Your task to perform on an android device: Open calendar and show me the second week of next month Image 0: 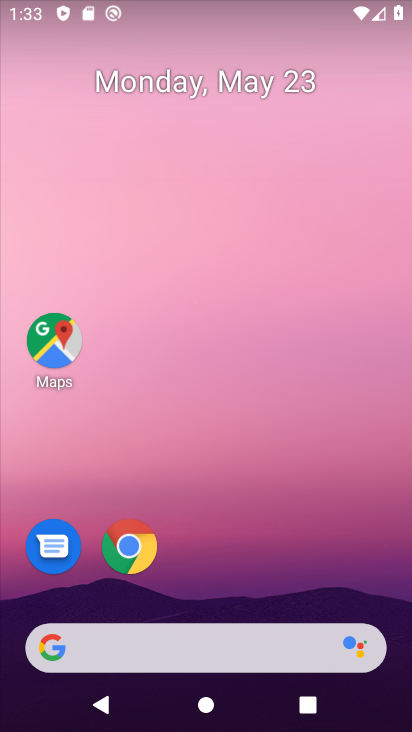
Step 0: drag from (238, 523) to (308, 30)
Your task to perform on an android device: Open calendar and show me the second week of next month Image 1: 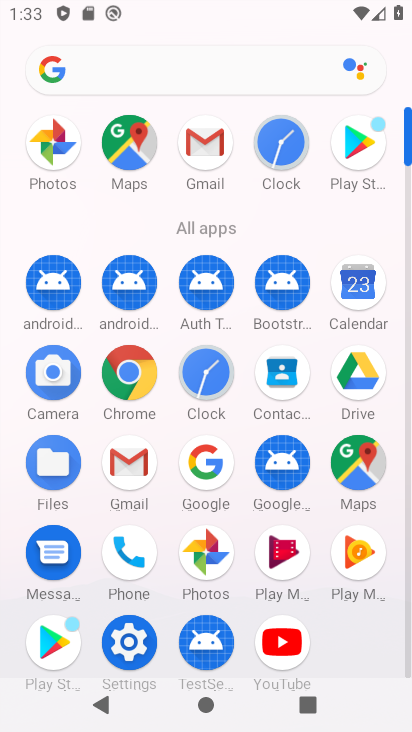
Step 1: click (353, 297)
Your task to perform on an android device: Open calendar and show me the second week of next month Image 2: 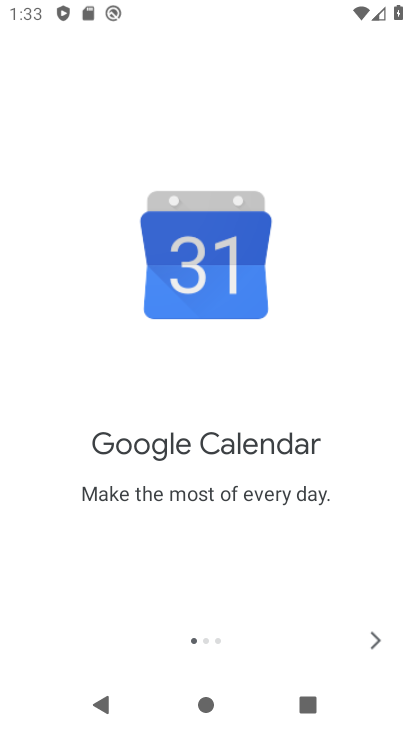
Step 2: click (375, 643)
Your task to perform on an android device: Open calendar and show me the second week of next month Image 3: 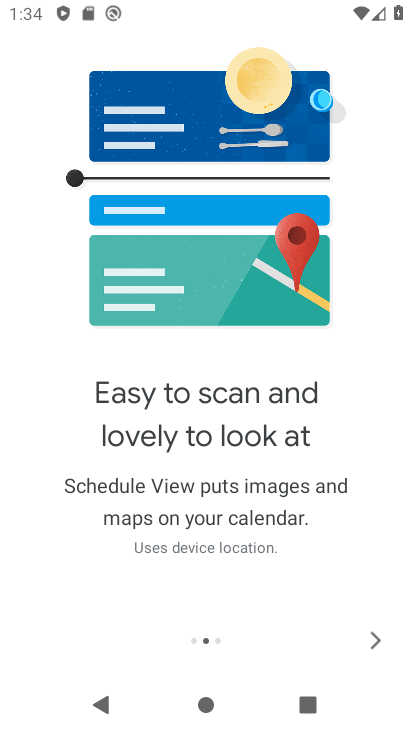
Step 3: click (371, 642)
Your task to perform on an android device: Open calendar and show me the second week of next month Image 4: 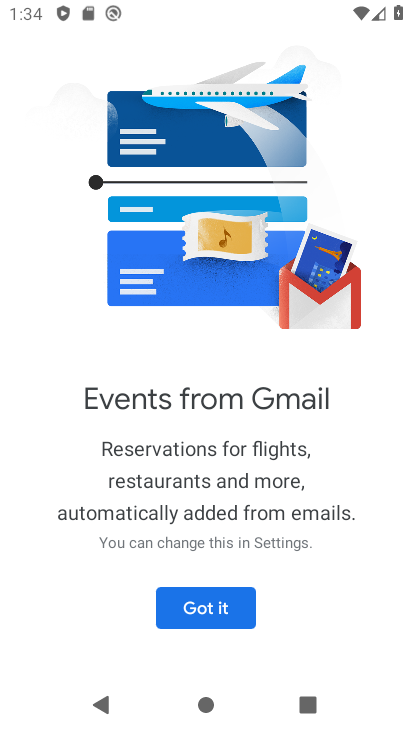
Step 4: click (207, 611)
Your task to perform on an android device: Open calendar and show me the second week of next month Image 5: 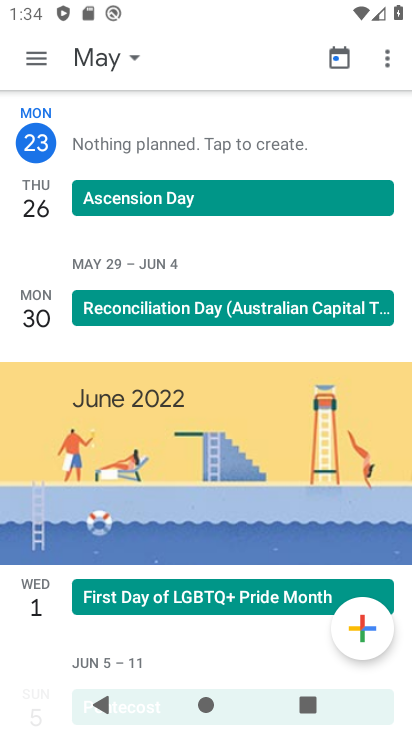
Step 5: click (123, 54)
Your task to perform on an android device: Open calendar and show me the second week of next month Image 6: 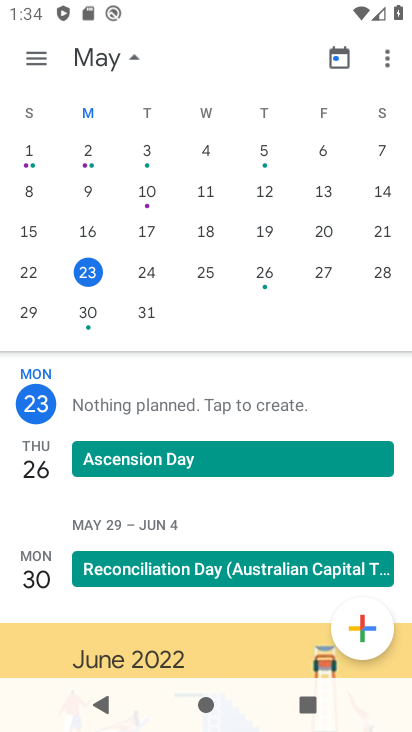
Step 6: drag from (391, 243) to (7, 189)
Your task to perform on an android device: Open calendar and show me the second week of next month Image 7: 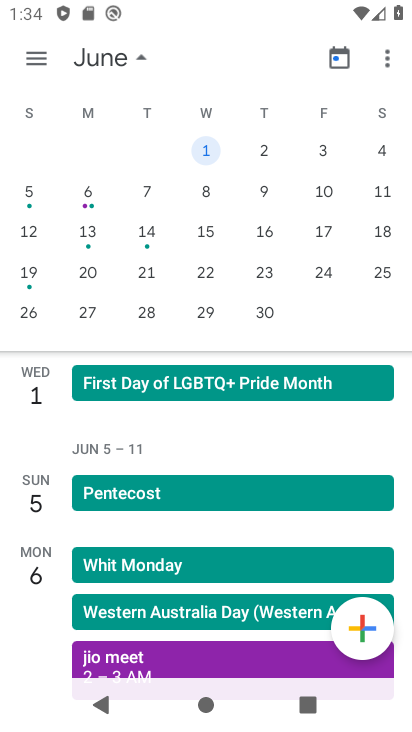
Step 7: click (89, 191)
Your task to perform on an android device: Open calendar and show me the second week of next month Image 8: 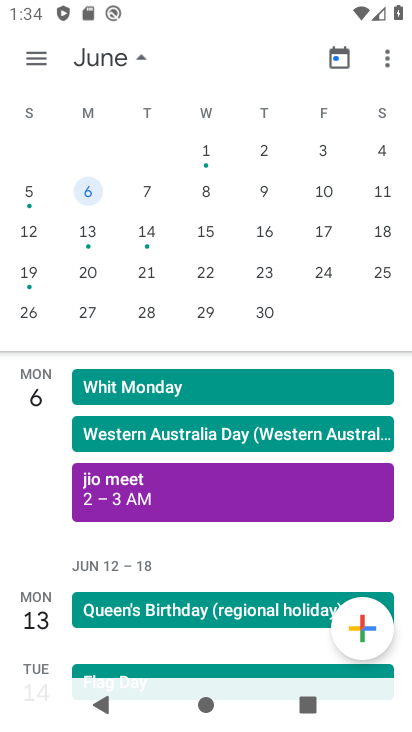
Step 8: task complete